Your task to perform on an android device: Do I have any events today? Image 0: 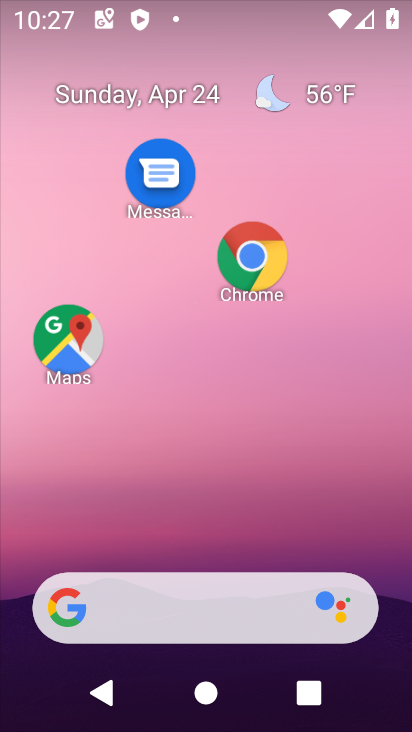
Step 0: drag from (220, 710) to (184, 141)
Your task to perform on an android device: Do I have any events today? Image 1: 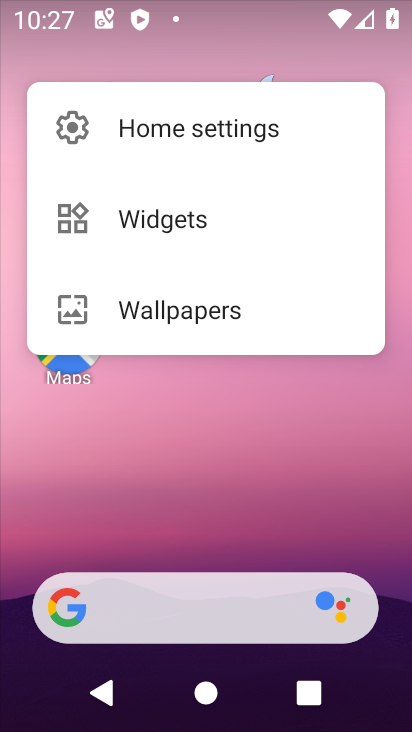
Step 1: click (210, 408)
Your task to perform on an android device: Do I have any events today? Image 2: 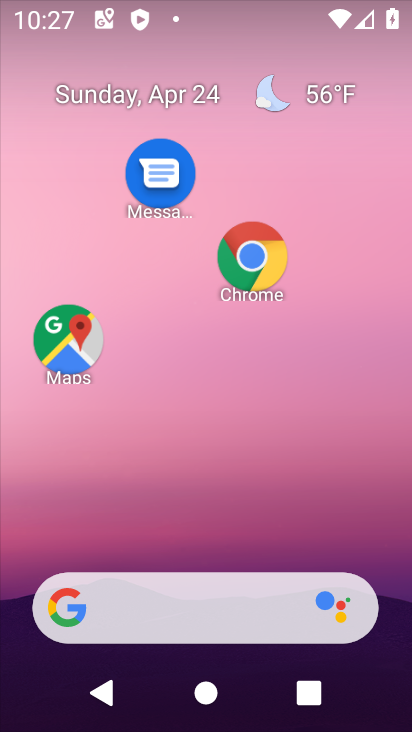
Step 2: drag from (239, 720) to (209, 110)
Your task to perform on an android device: Do I have any events today? Image 3: 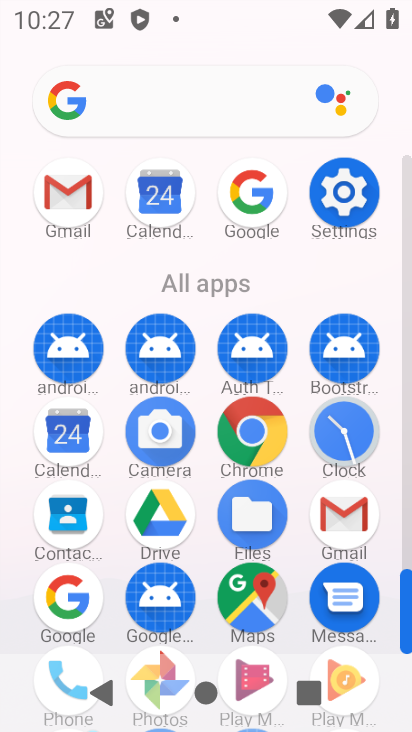
Step 3: click (63, 442)
Your task to perform on an android device: Do I have any events today? Image 4: 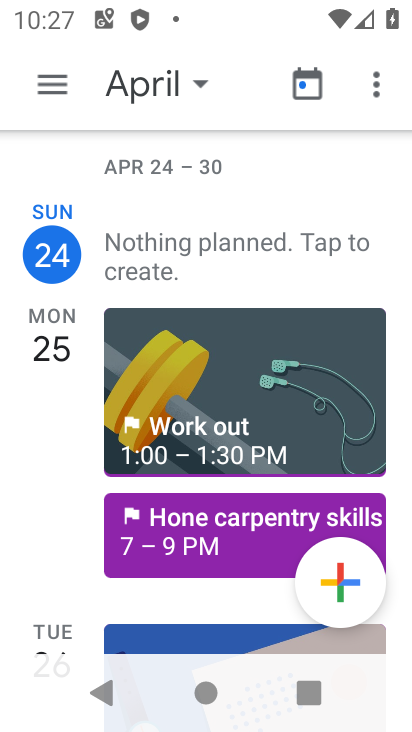
Step 4: task complete